Your task to perform on an android device: open chrome and create a bookmark for the current page Image 0: 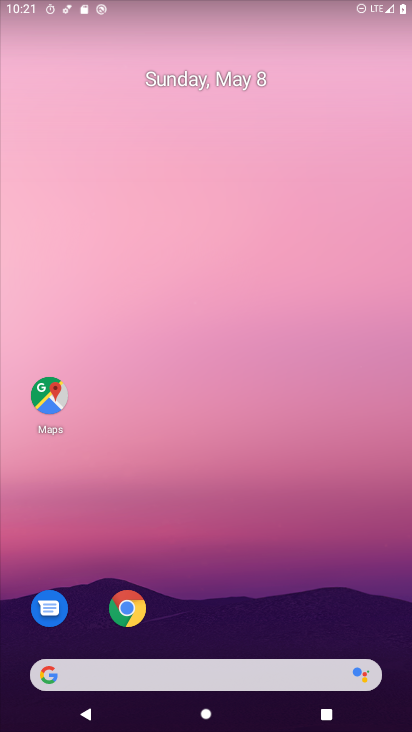
Step 0: click (121, 604)
Your task to perform on an android device: open chrome and create a bookmark for the current page Image 1: 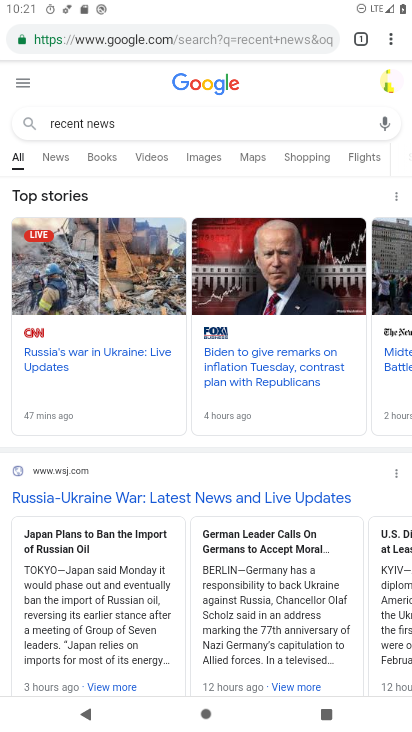
Step 1: click (391, 42)
Your task to perform on an android device: open chrome and create a bookmark for the current page Image 2: 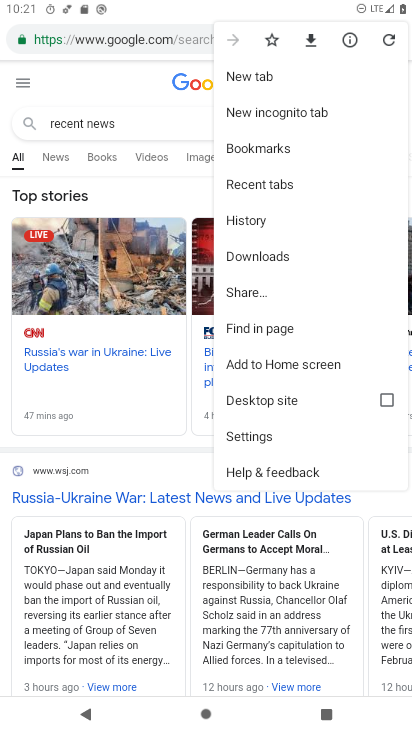
Step 2: click (272, 41)
Your task to perform on an android device: open chrome and create a bookmark for the current page Image 3: 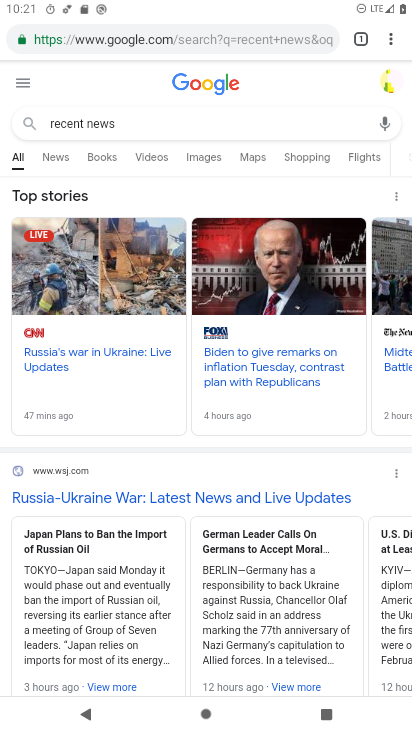
Step 3: click (390, 44)
Your task to perform on an android device: open chrome and create a bookmark for the current page Image 4: 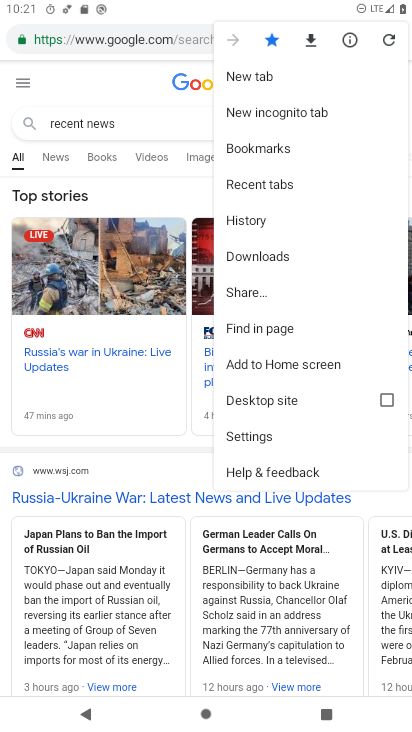
Step 4: task complete